Your task to perform on an android device: Play the last video I watched on Youtube Image 0: 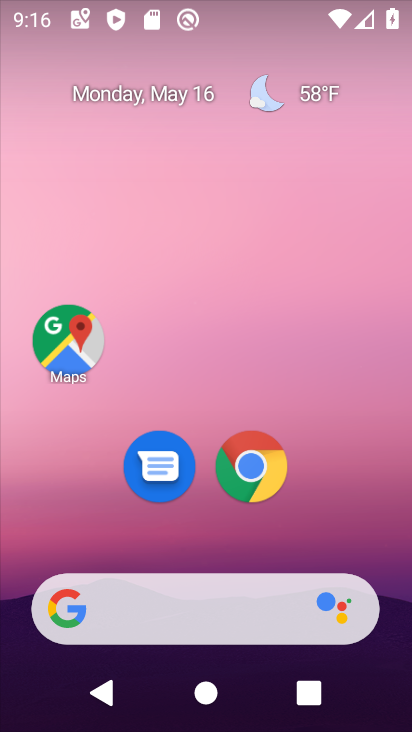
Step 0: drag from (340, 521) to (395, 92)
Your task to perform on an android device: Play the last video I watched on Youtube Image 1: 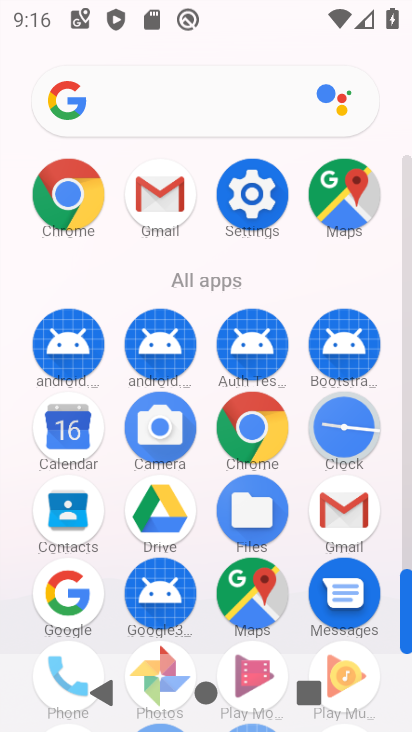
Step 1: drag from (210, 278) to (227, 37)
Your task to perform on an android device: Play the last video I watched on Youtube Image 2: 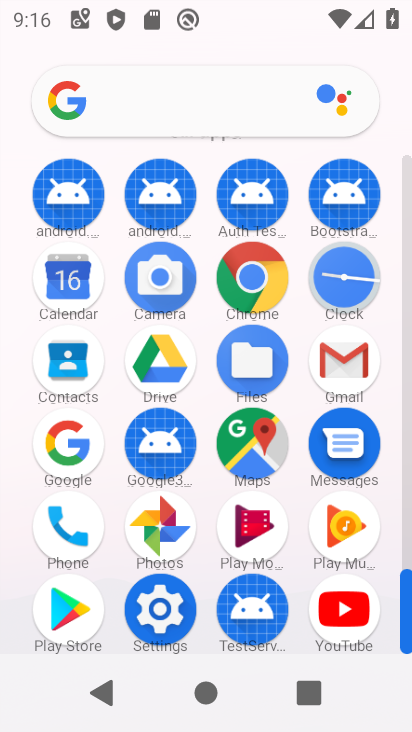
Step 2: click (348, 615)
Your task to perform on an android device: Play the last video I watched on Youtube Image 3: 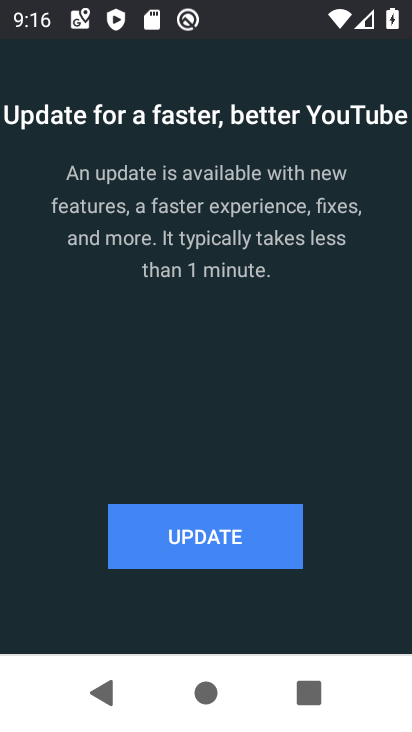
Step 3: click (199, 534)
Your task to perform on an android device: Play the last video I watched on Youtube Image 4: 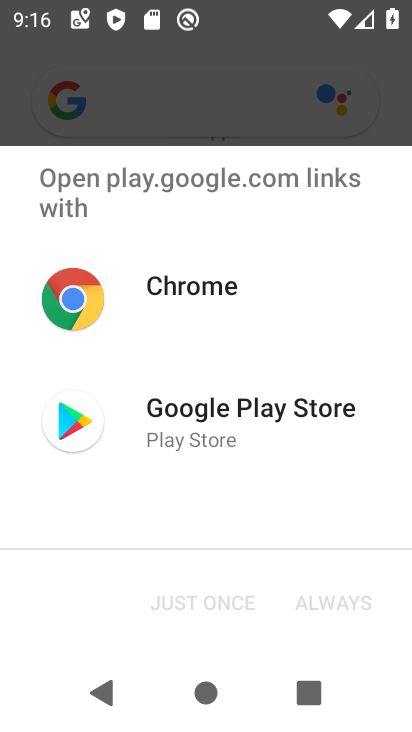
Step 4: click (227, 416)
Your task to perform on an android device: Play the last video I watched on Youtube Image 5: 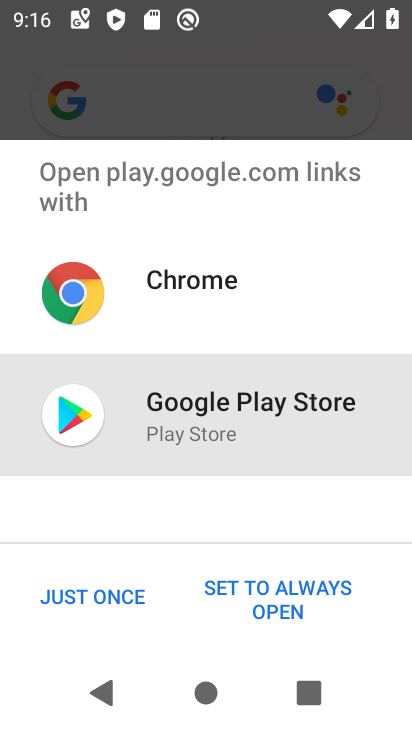
Step 5: click (97, 604)
Your task to perform on an android device: Play the last video I watched on Youtube Image 6: 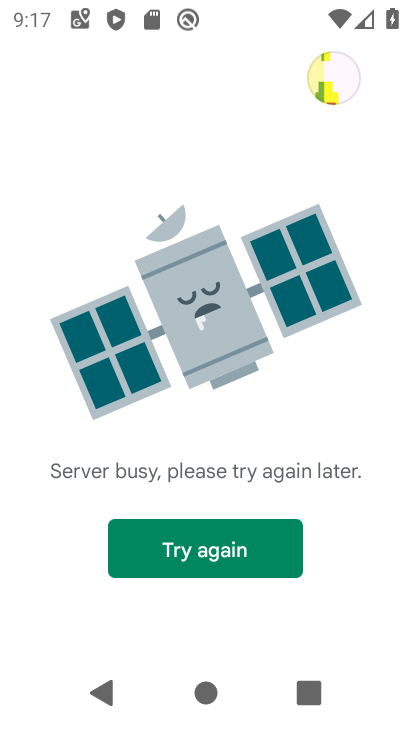
Step 6: press back button
Your task to perform on an android device: Play the last video I watched on Youtube Image 7: 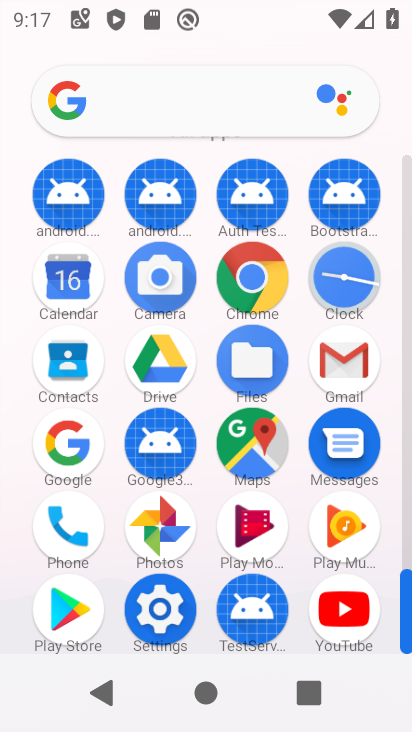
Step 7: click (346, 612)
Your task to perform on an android device: Play the last video I watched on Youtube Image 8: 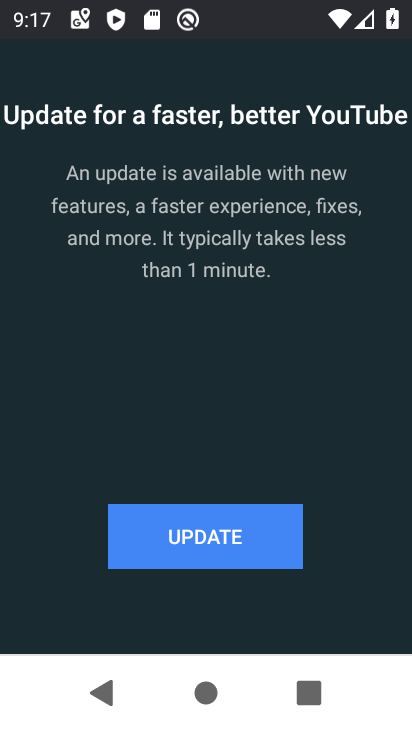
Step 8: task complete